Your task to perform on an android device: find which apps use the phone's location Image 0: 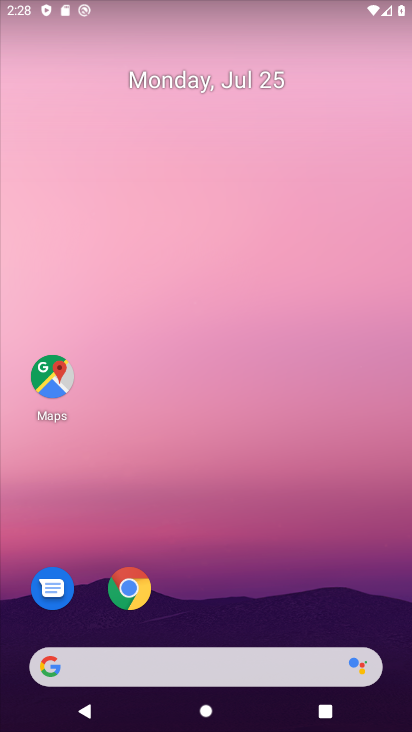
Step 0: drag from (221, 660) to (189, 251)
Your task to perform on an android device: find which apps use the phone's location Image 1: 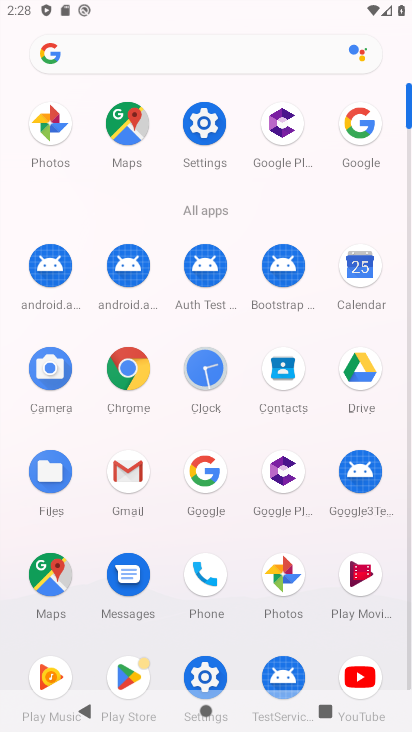
Step 1: click (199, 126)
Your task to perform on an android device: find which apps use the phone's location Image 2: 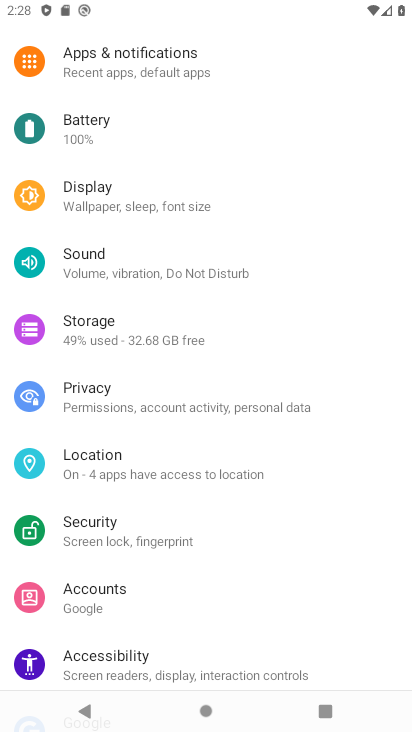
Step 2: click (108, 464)
Your task to perform on an android device: find which apps use the phone's location Image 3: 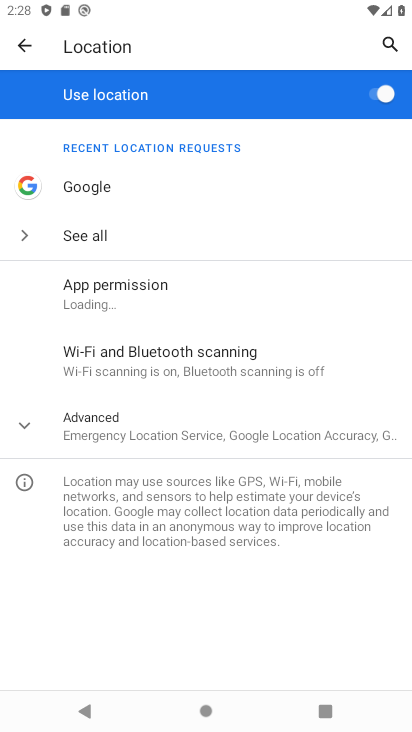
Step 3: click (94, 292)
Your task to perform on an android device: find which apps use the phone's location Image 4: 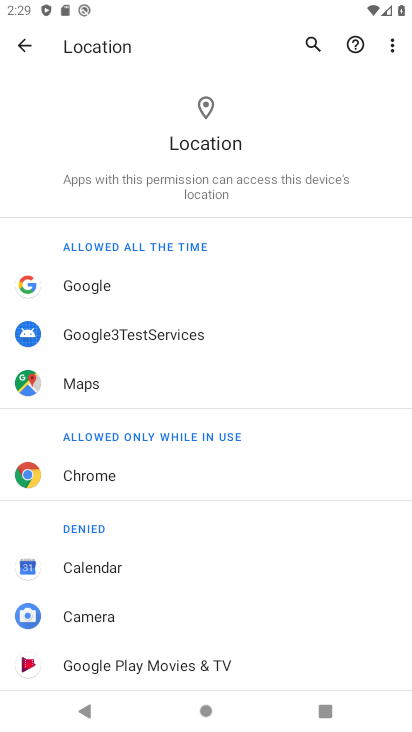
Step 4: task complete